Your task to perform on an android device: check android version Image 0: 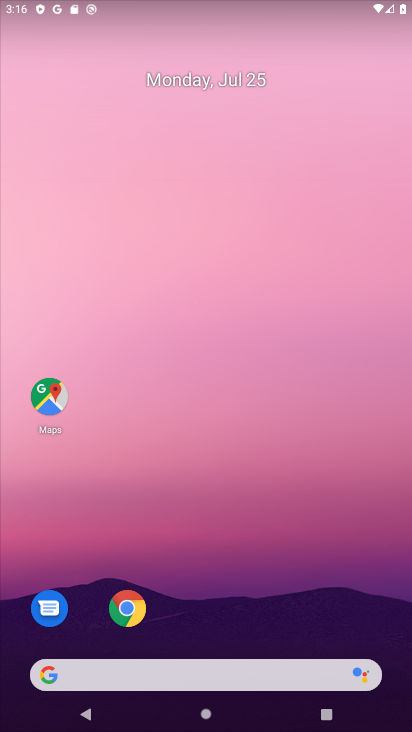
Step 0: drag from (1, 665) to (256, 88)
Your task to perform on an android device: check android version Image 1: 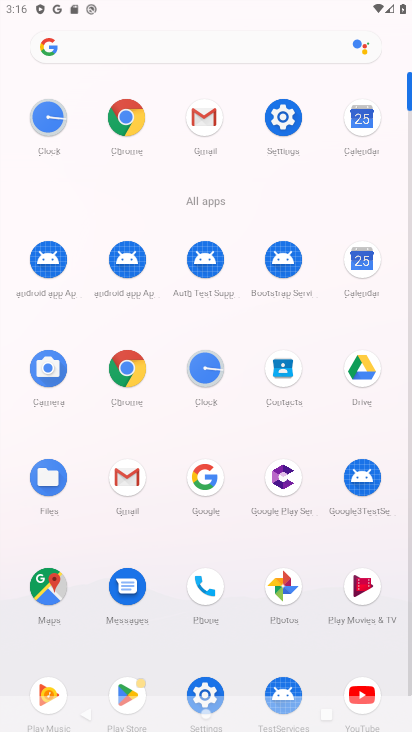
Step 1: click (278, 123)
Your task to perform on an android device: check android version Image 2: 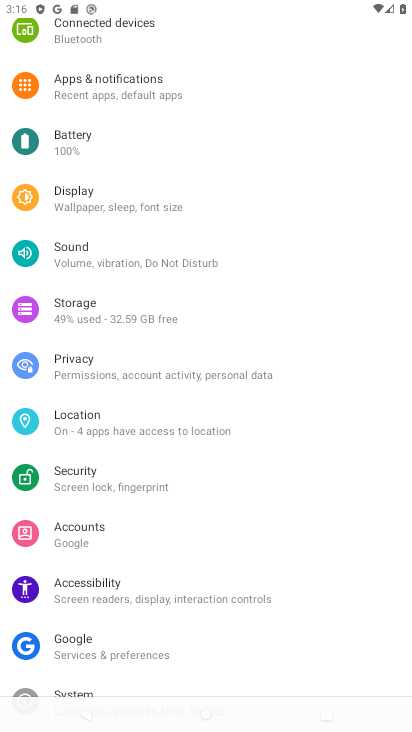
Step 2: drag from (39, 498) to (196, 33)
Your task to perform on an android device: check android version Image 3: 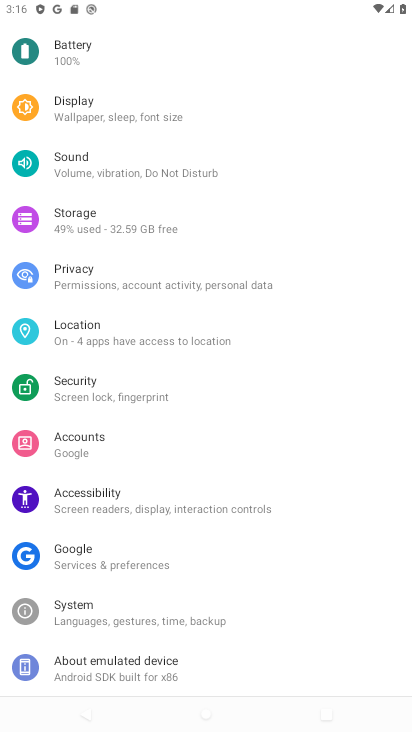
Step 3: click (96, 680)
Your task to perform on an android device: check android version Image 4: 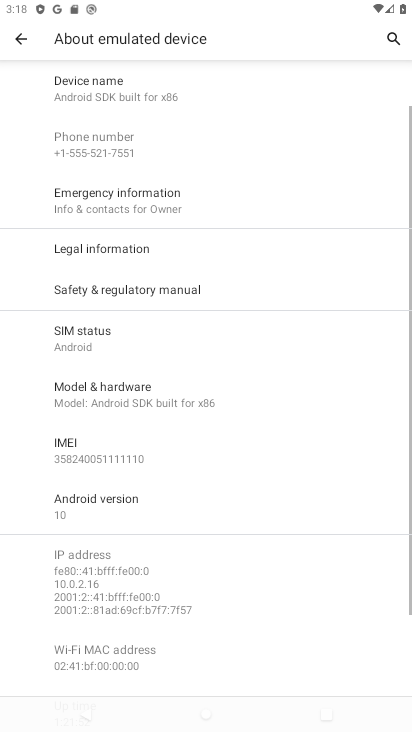
Step 4: task complete